Your task to perform on an android device: Open Google Image 0: 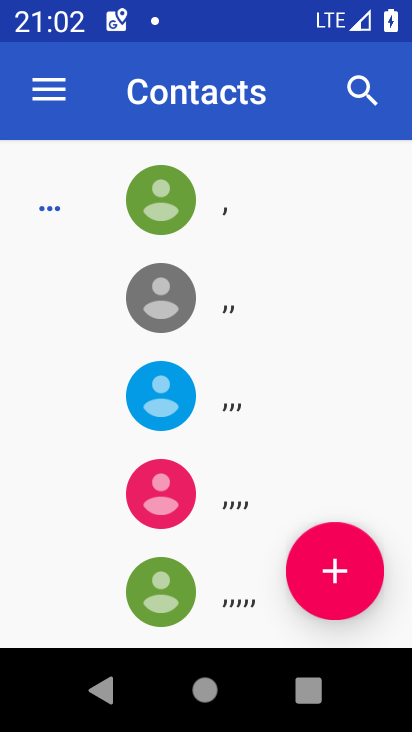
Step 0: press home button
Your task to perform on an android device: Open Google Image 1: 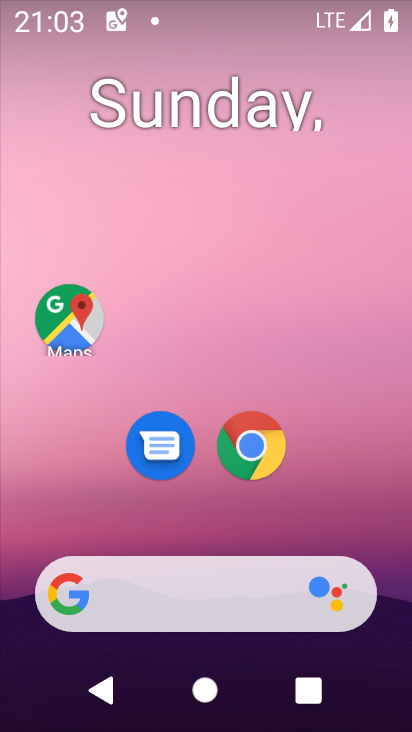
Step 1: click (67, 616)
Your task to perform on an android device: Open Google Image 2: 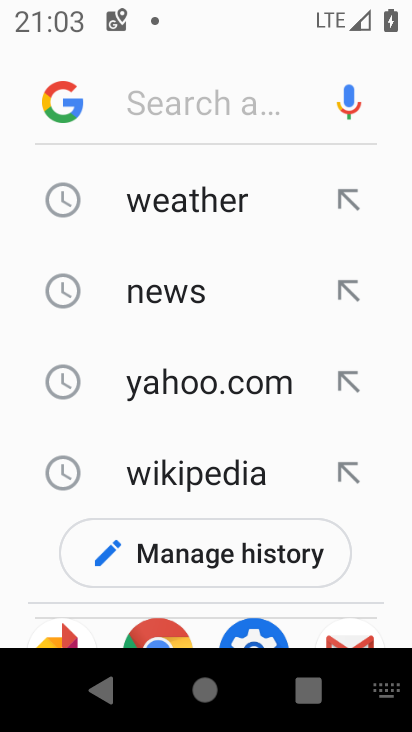
Step 2: click (44, 104)
Your task to perform on an android device: Open Google Image 3: 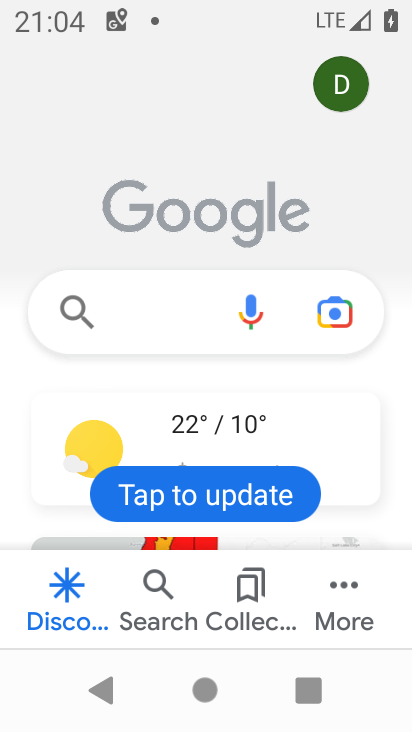
Step 3: task complete